Your task to perform on an android device: Open Google Chrome and open the bookmarks view Image 0: 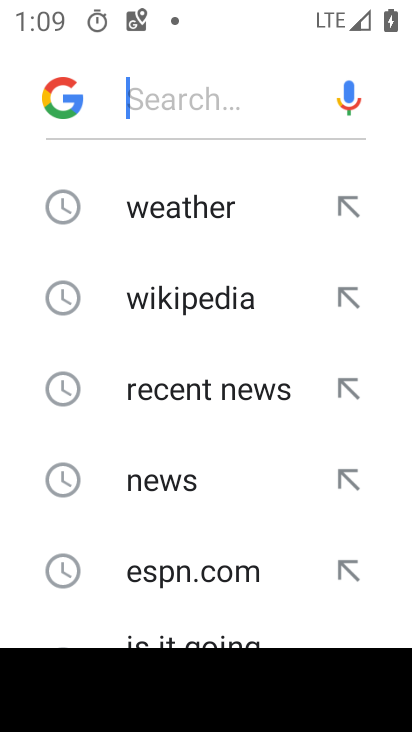
Step 0: press home button
Your task to perform on an android device: Open Google Chrome and open the bookmarks view Image 1: 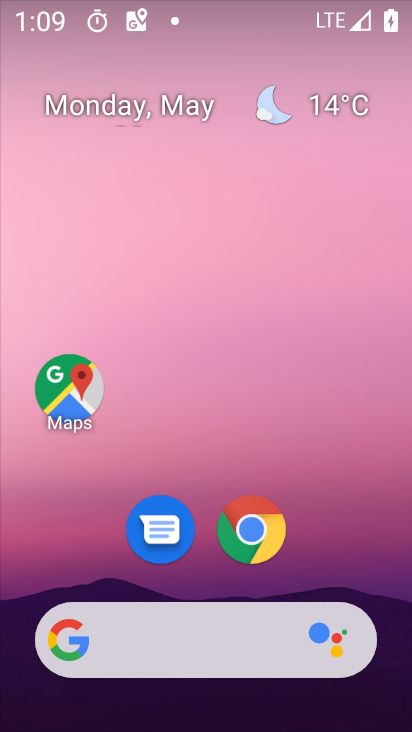
Step 1: drag from (373, 576) to (348, 244)
Your task to perform on an android device: Open Google Chrome and open the bookmarks view Image 2: 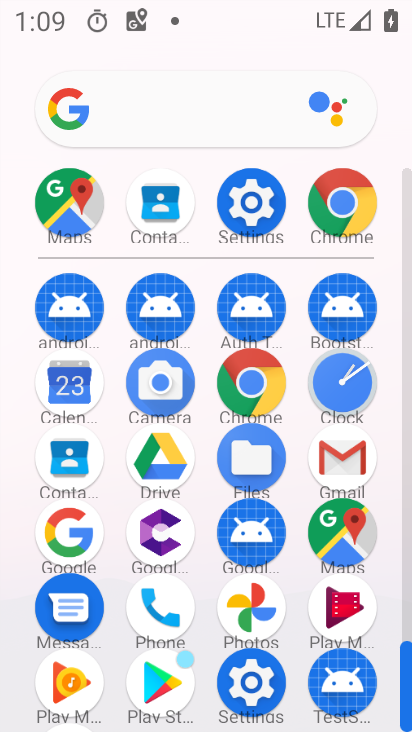
Step 2: click (270, 391)
Your task to perform on an android device: Open Google Chrome and open the bookmarks view Image 3: 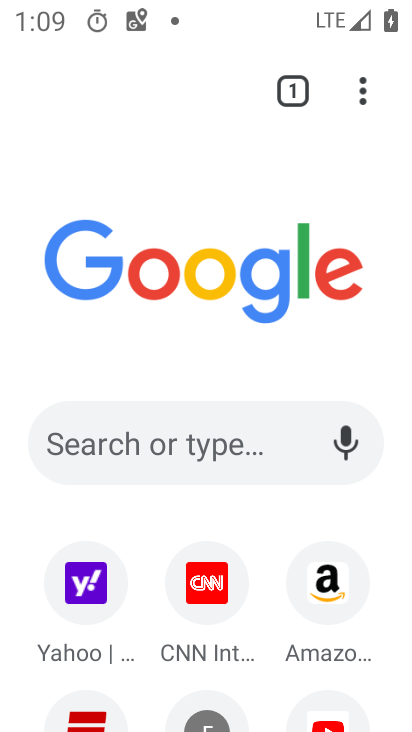
Step 3: click (361, 99)
Your task to perform on an android device: Open Google Chrome and open the bookmarks view Image 4: 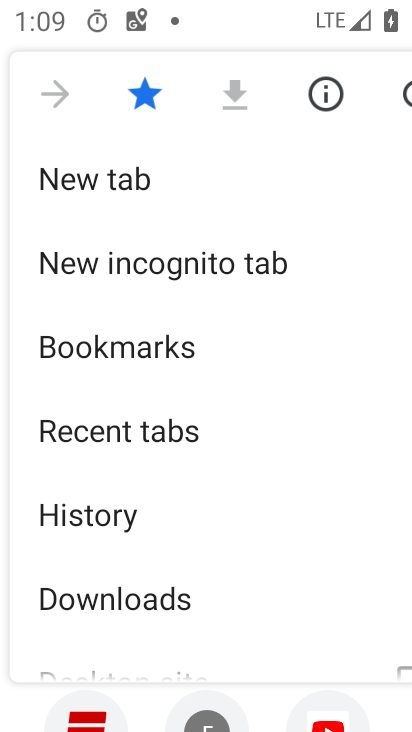
Step 4: drag from (301, 480) to (313, 398)
Your task to perform on an android device: Open Google Chrome and open the bookmarks view Image 5: 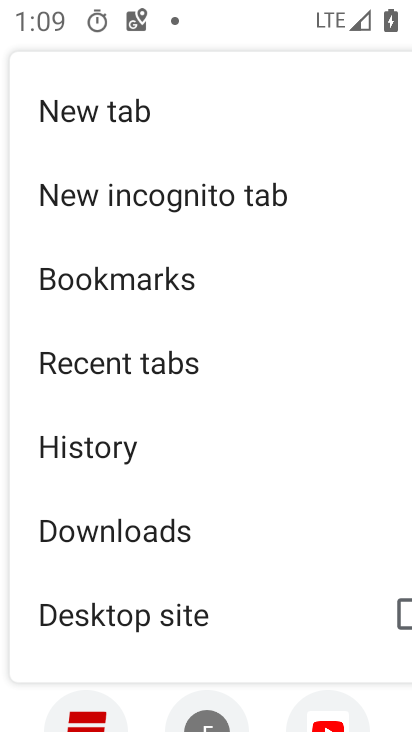
Step 5: drag from (310, 495) to (310, 401)
Your task to perform on an android device: Open Google Chrome and open the bookmarks view Image 6: 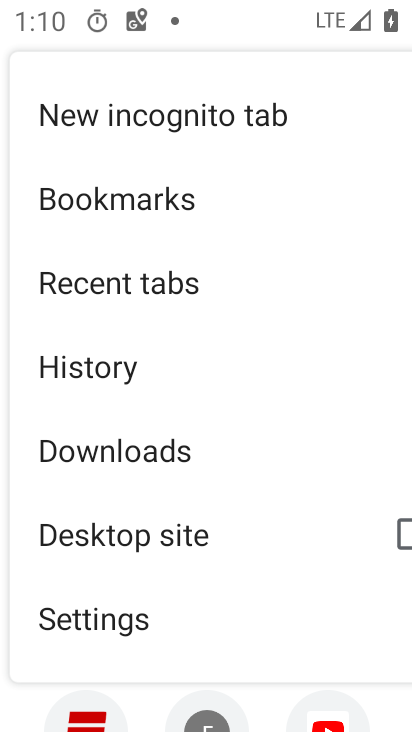
Step 6: drag from (305, 507) to (298, 336)
Your task to perform on an android device: Open Google Chrome and open the bookmarks view Image 7: 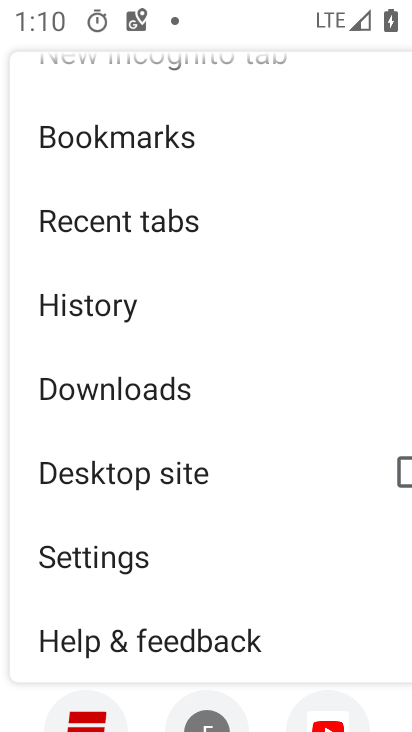
Step 7: drag from (292, 297) to (292, 395)
Your task to perform on an android device: Open Google Chrome and open the bookmarks view Image 8: 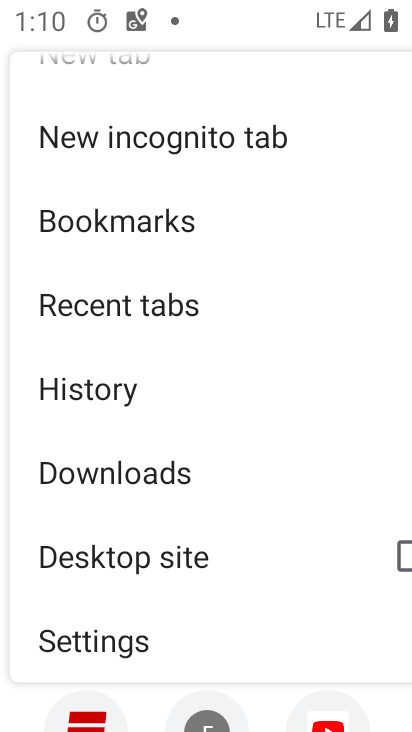
Step 8: click (271, 360)
Your task to perform on an android device: Open Google Chrome and open the bookmarks view Image 9: 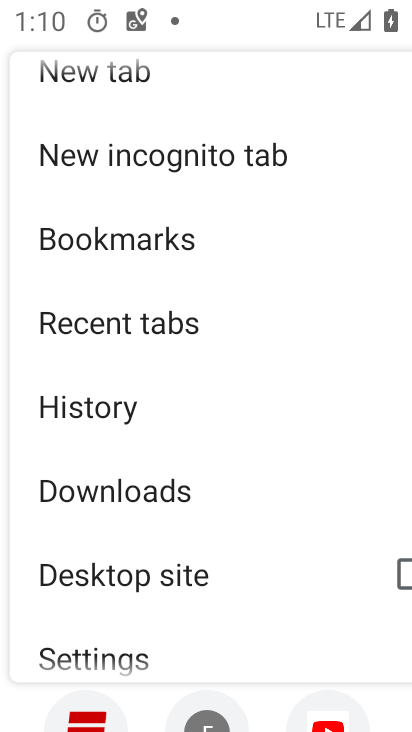
Step 9: click (186, 248)
Your task to perform on an android device: Open Google Chrome and open the bookmarks view Image 10: 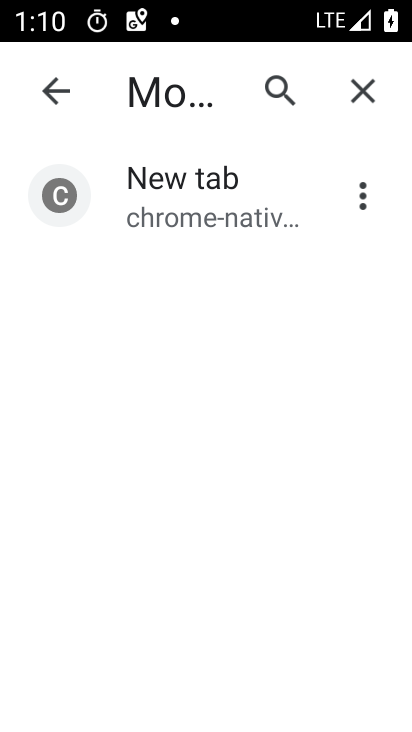
Step 10: task complete